Your task to perform on an android device: delete the emails in spam in the gmail app Image 0: 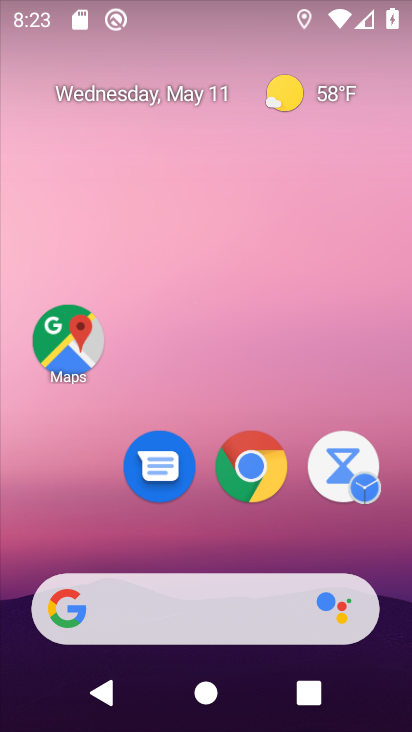
Step 0: drag from (163, 535) to (245, 0)
Your task to perform on an android device: delete the emails in spam in the gmail app Image 1: 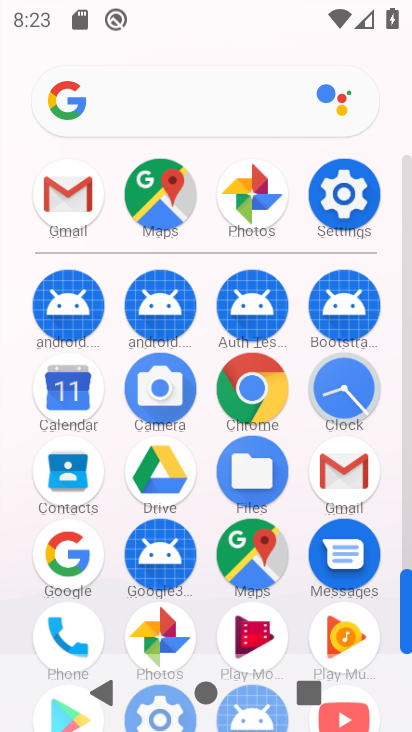
Step 1: click (334, 465)
Your task to perform on an android device: delete the emails in spam in the gmail app Image 2: 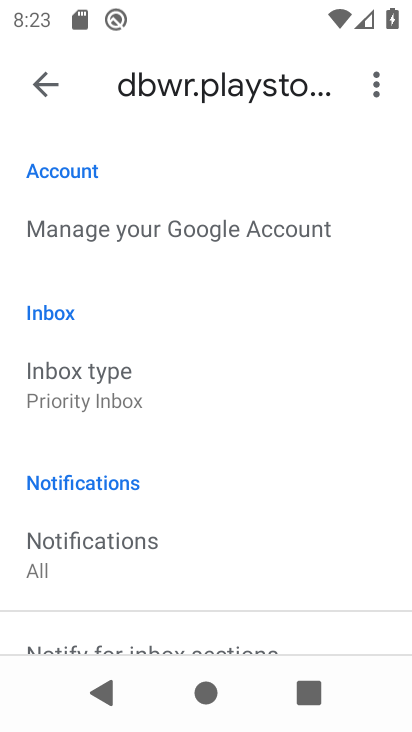
Step 2: click (51, 84)
Your task to perform on an android device: delete the emails in spam in the gmail app Image 3: 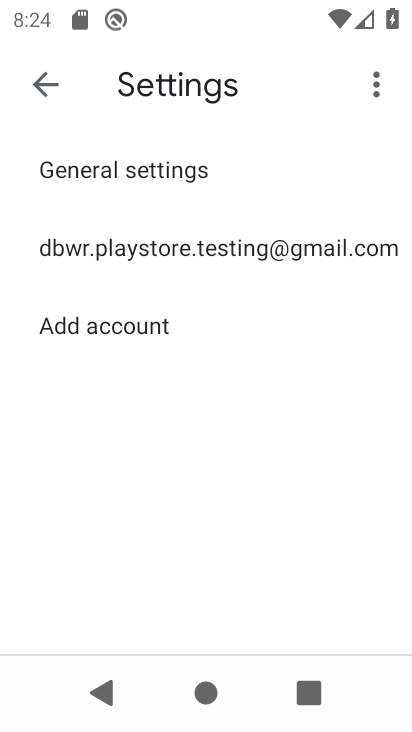
Step 3: click (53, 79)
Your task to perform on an android device: delete the emails in spam in the gmail app Image 4: 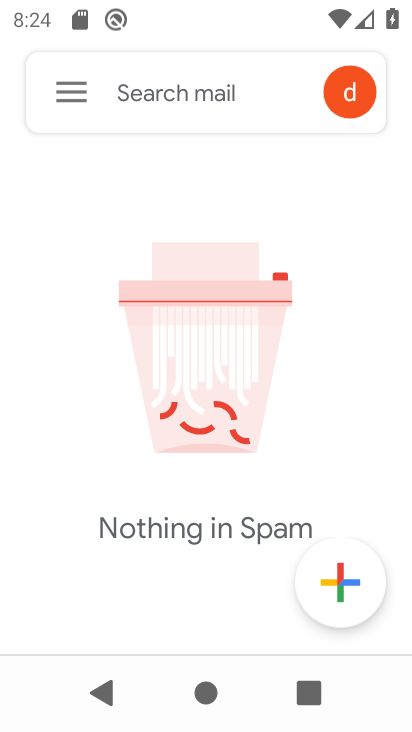
Step 4: click (63, 99)
Your task to perform on an android device: delete the emails in spam in the gmail app Image 5: 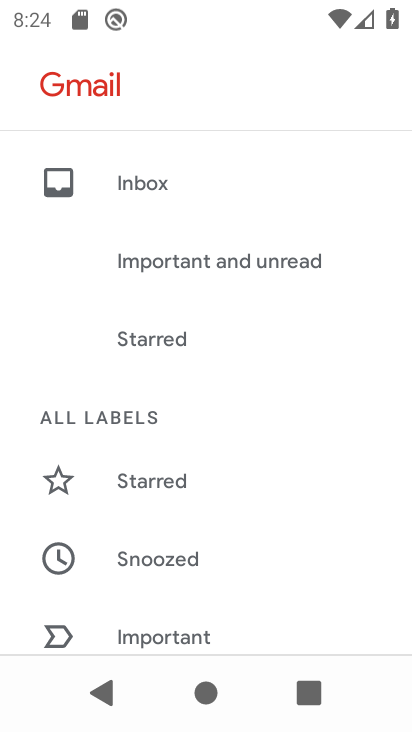
Step 5: drag from (196, 550) to (224, 245)
Your task to perform on an android device: delete the emails in spam in the gmail app Image 6: 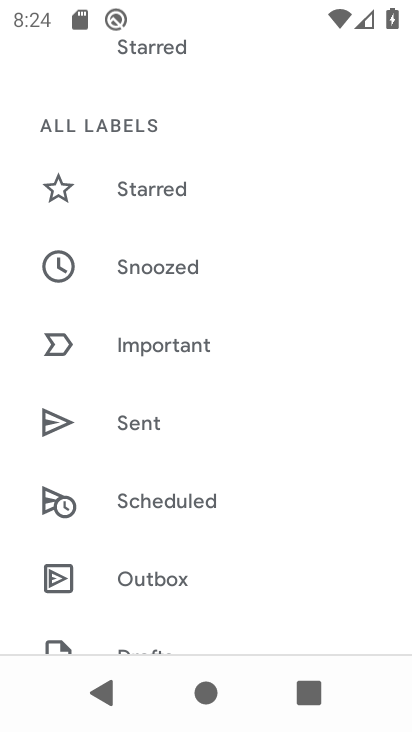
Step 6: drag from (154, 523) to (172, 243)
Your task to perform on an android device: delete the emails in spam in the gmail app Image 7: 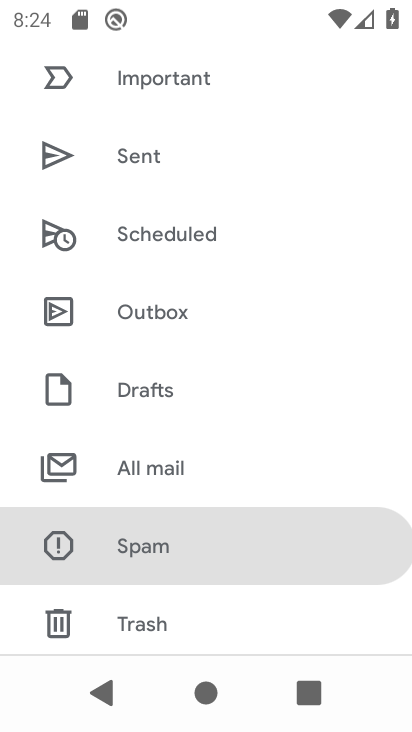
Step 7: click (136, 549)
Your task to perform on an android device: delete the emails in spam in the gmail app Image 8: 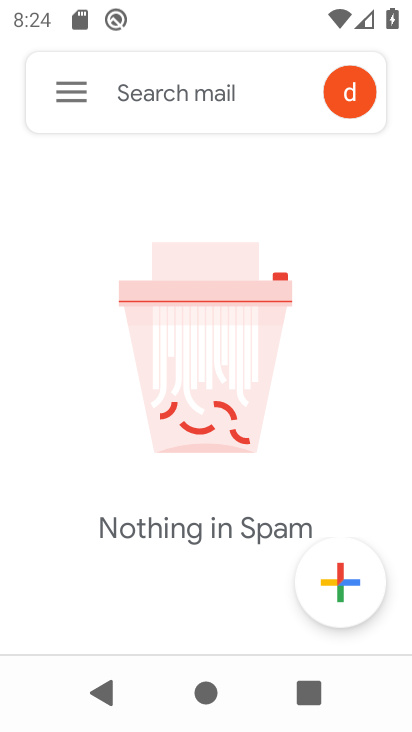
Step 8: task complete